Your task to perform on an android device: Go to calendar. Show me events next week Image 0: 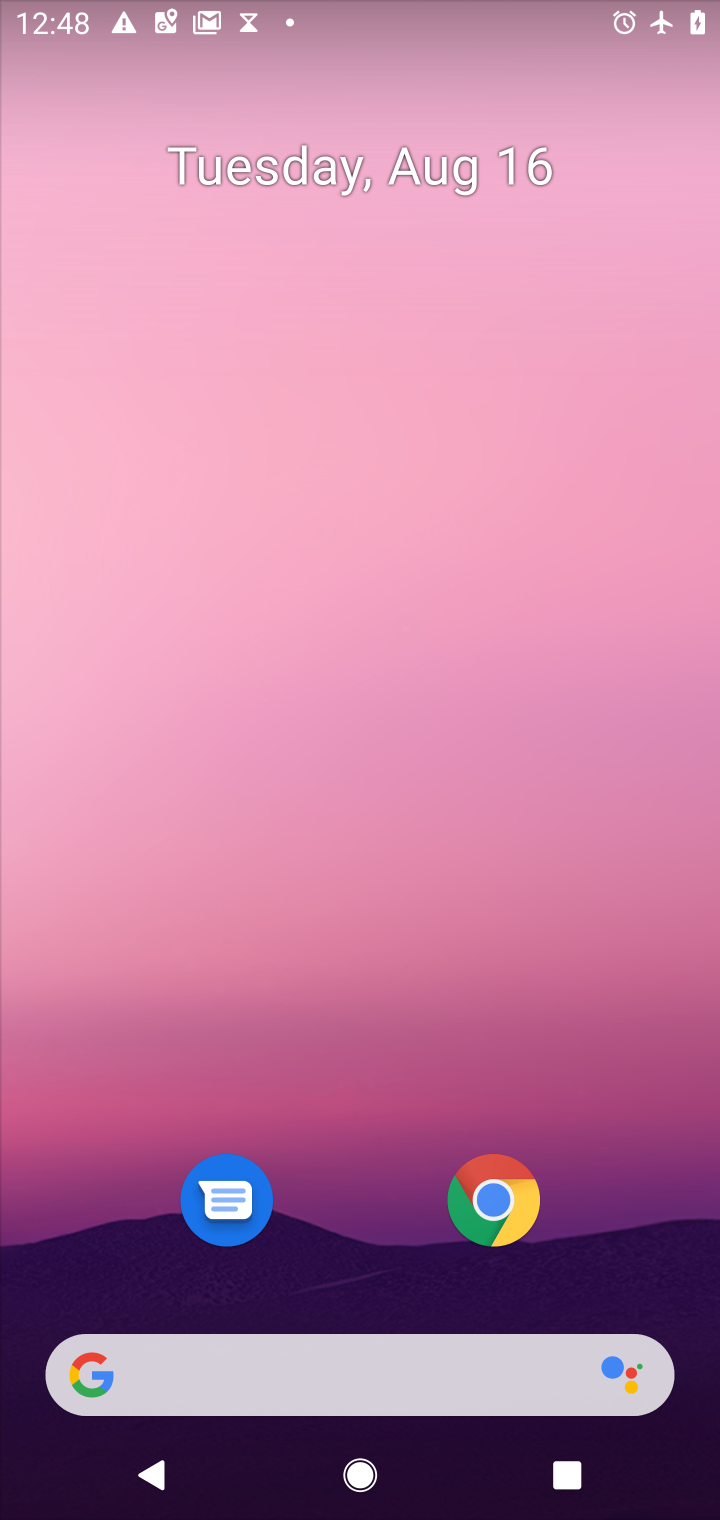
Step 0: drag from (369, 1202) to (399, 360)
Your task to perform on an android device: Go to calendar. Show me events next week Image 1: 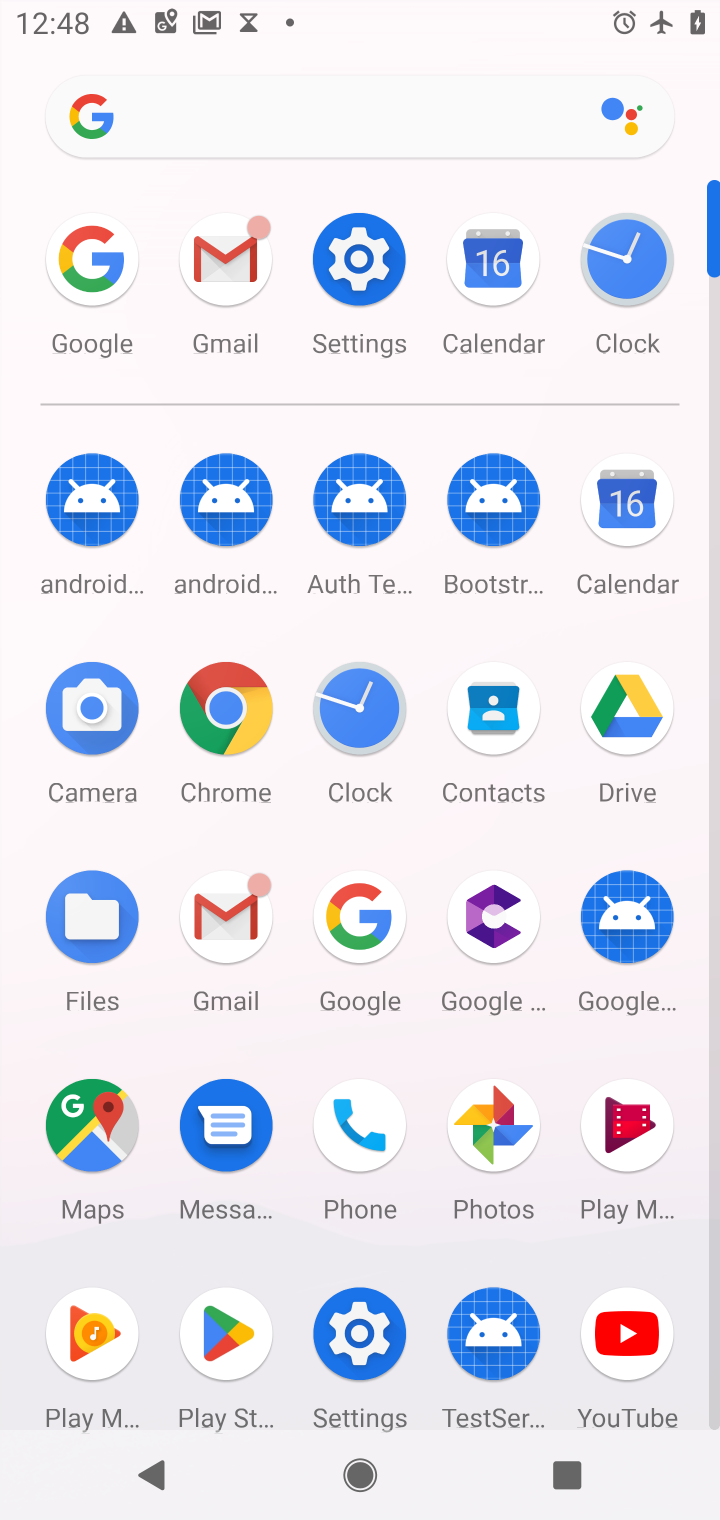
Step 1: click (476, 291)
Your task to perform on an android device: Go to calendar. Show me events next week Image 2: 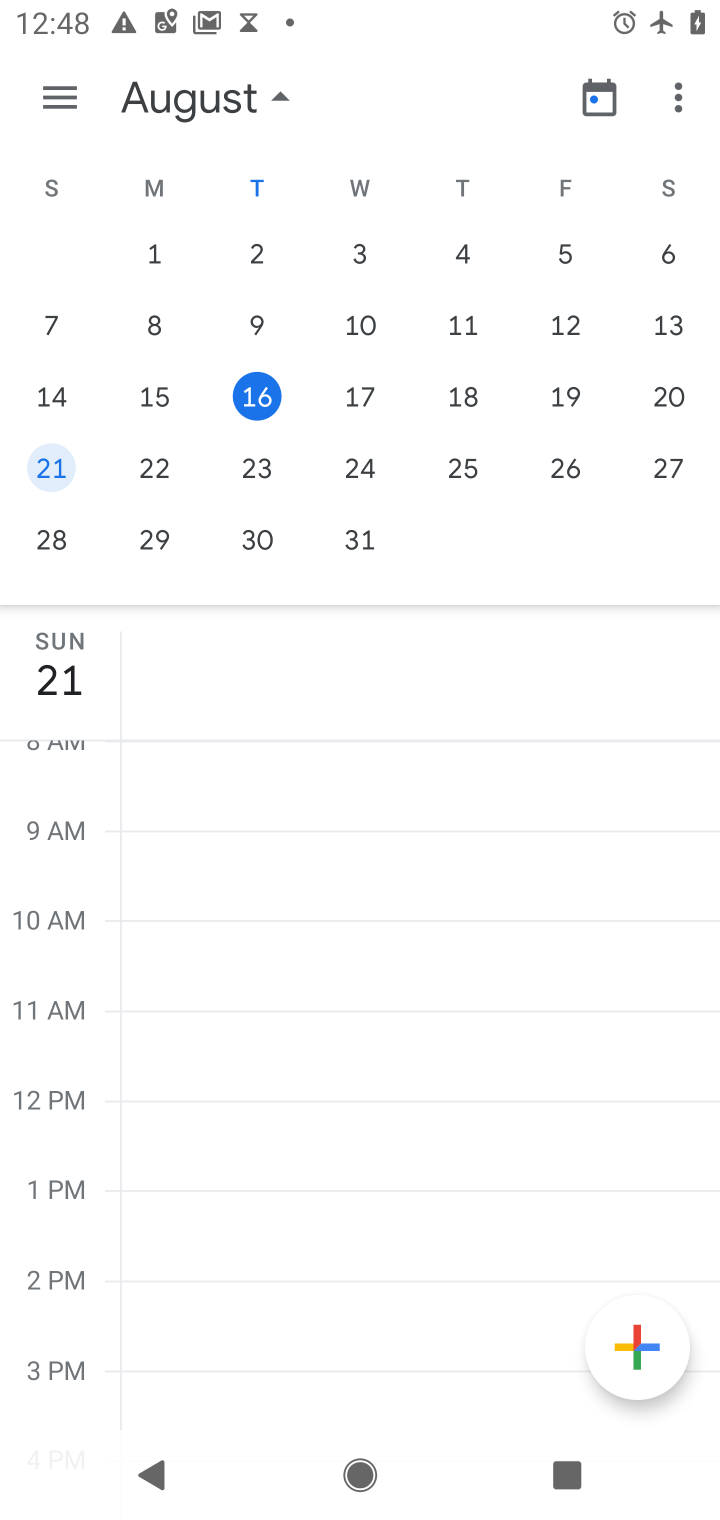
Step 2: click (65, 460)
Your task to perform on an android device: Go to calendar. Show me events next week Image 3: 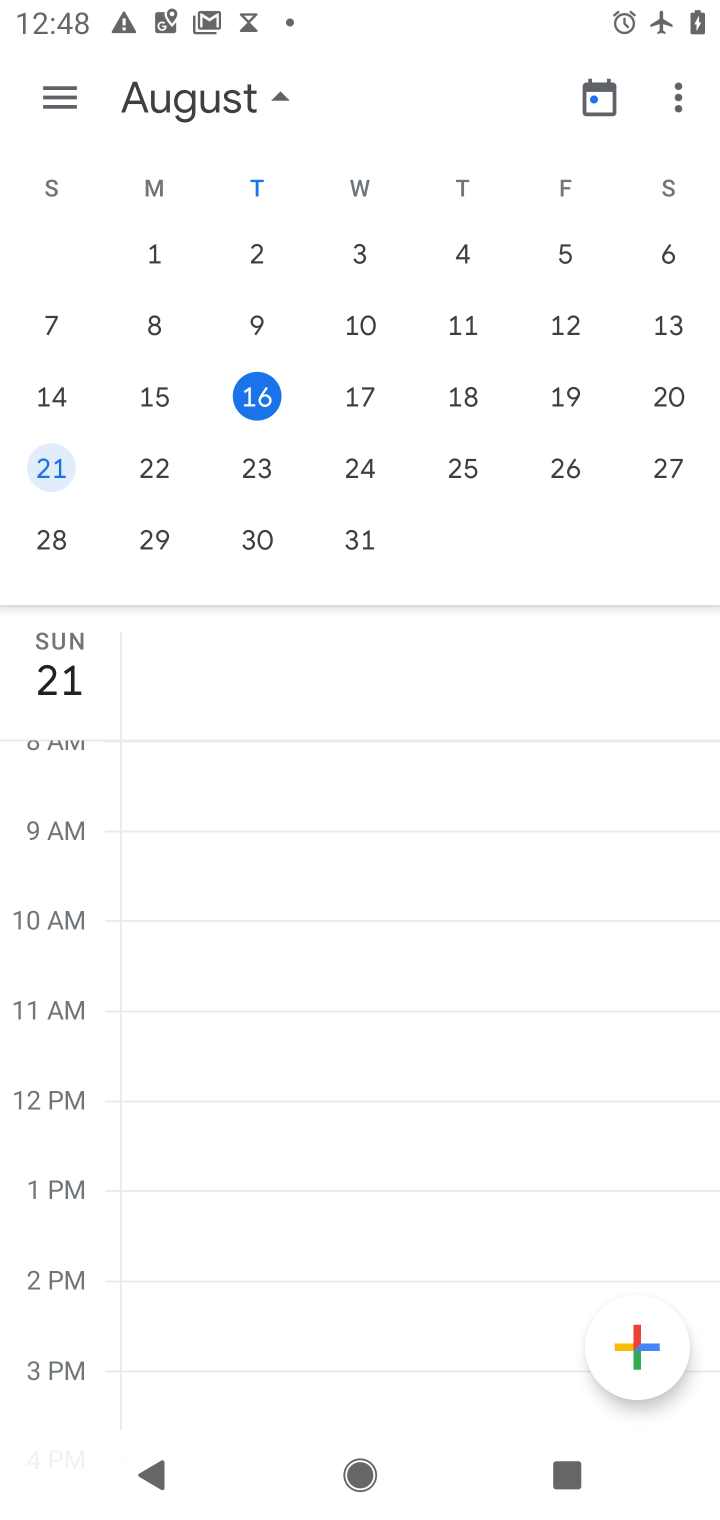
Step 3: task complete